Your task to perform on an android device: When is my next appointment? Image 0: 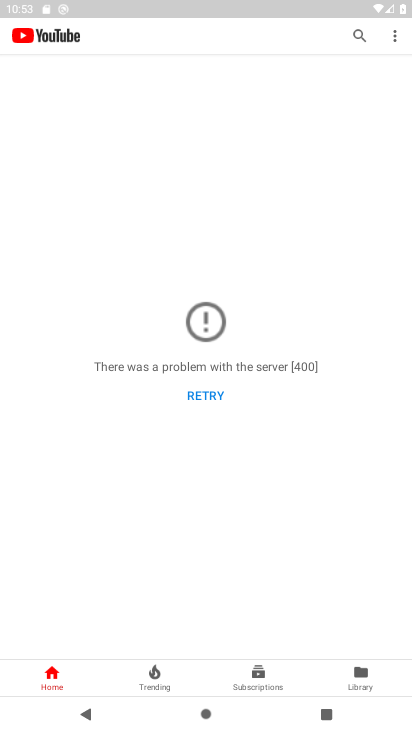
Step 0: press home button
Your task to perform on an android device: When is my next appointment? Image 1: 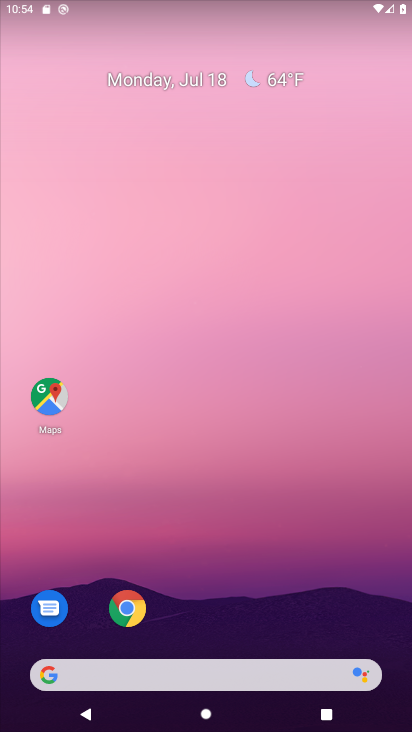
Step 1: drag from (42, 611) to (354, 101)
Your task to perform on an android device: When is my next appointment? Image 2: 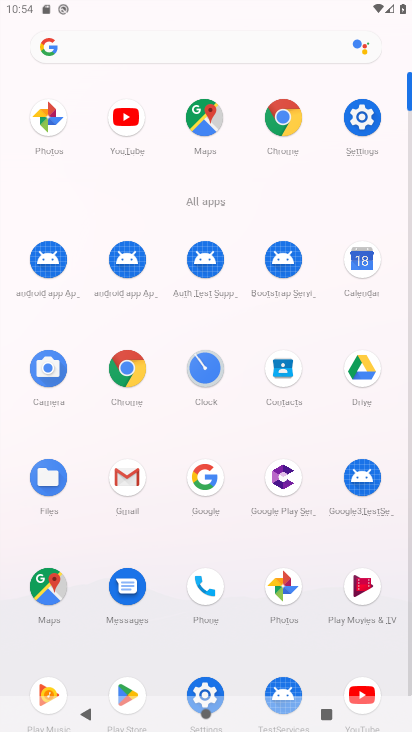
Step 2: click (365, 265)
Your task to perform on an android device: When is my next appointment? Image 3: 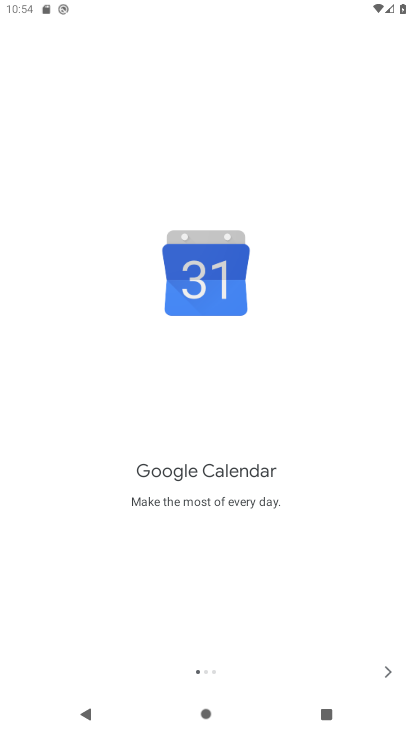
Step 3: click (389, 671)
Your task to perform on an android device: When is my next appointment? Image 4: 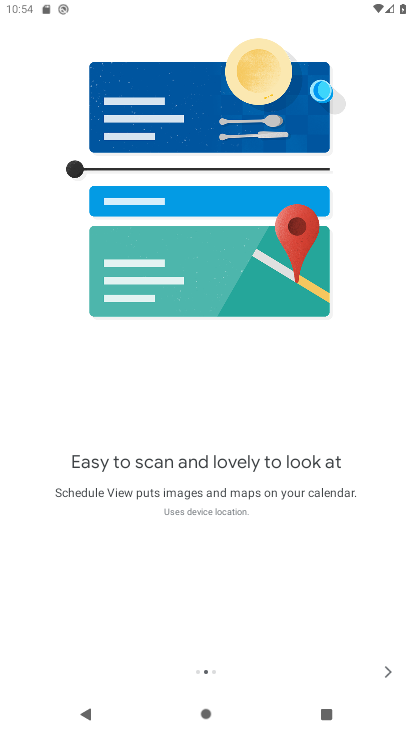
Step 4: click (389, 671)
Your task to perform on an android device: When is my next appointment? Image 5: 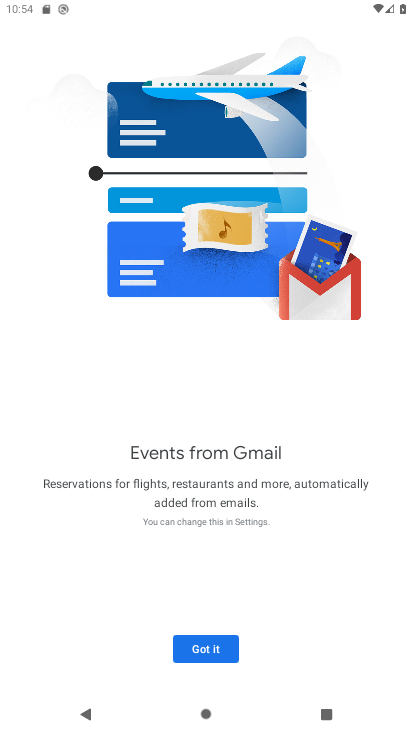
Step 5: click (215, 652)
Your task to perform on an android device: When is my next appointment? Image 6: 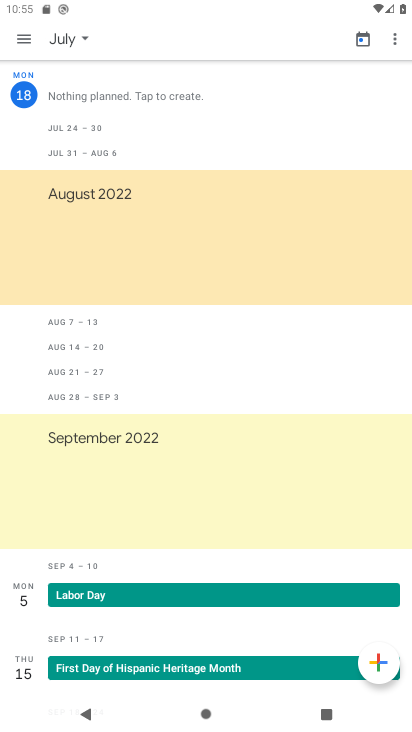
Step 6: task complete